Your task to perform on an android device: check the backup settings in the google photos Image 0: 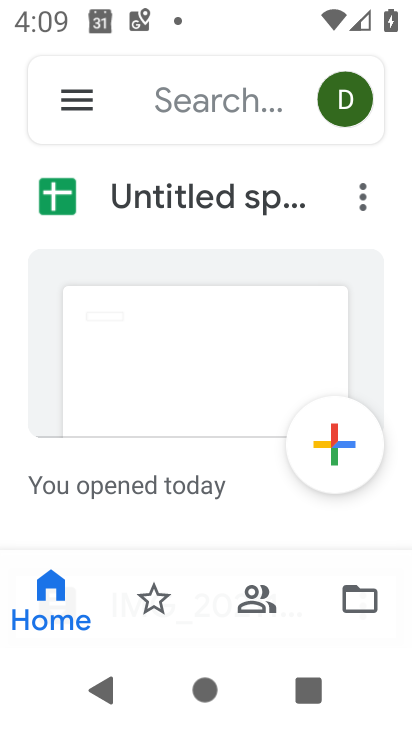
Step 0: press home button
Your task to perform on an android device: check the backup settings in the google photos Image 1: 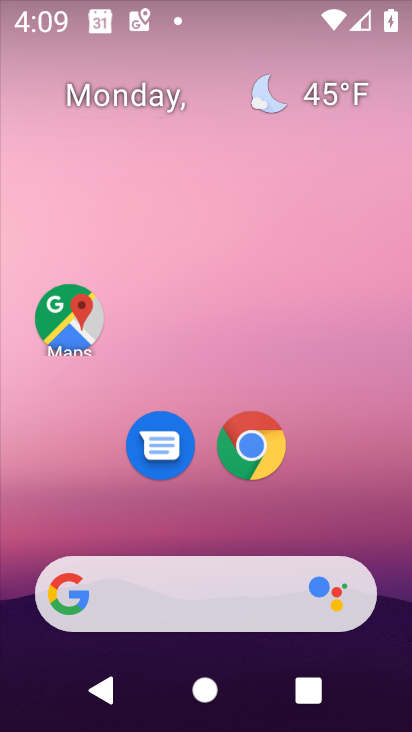
Step 1: drag from (285, 518) to (246, 37)
Your task to perform on an android device: check the backup settings in the google photos Image 2: 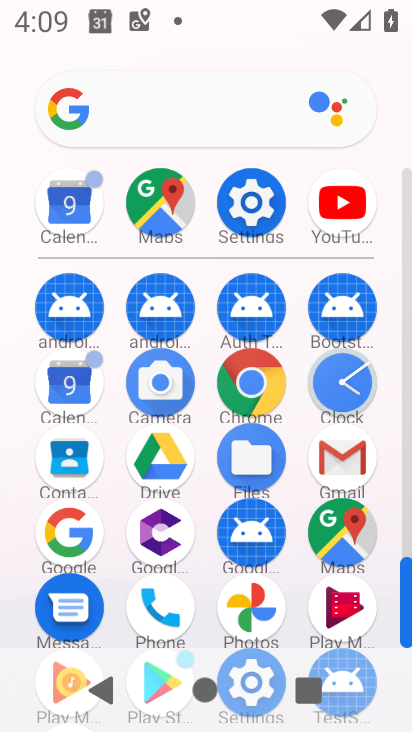
Step 2: click (248, 604)
Your task to perform on an android device: check the backup settings in the google photos Image 3: 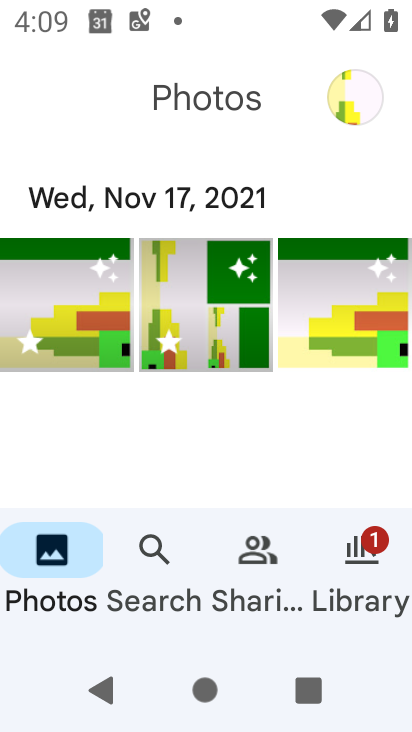
Step 3: click (377, 79)
Your task to perform on an android device: check the backup settings in the google photos Image 4: 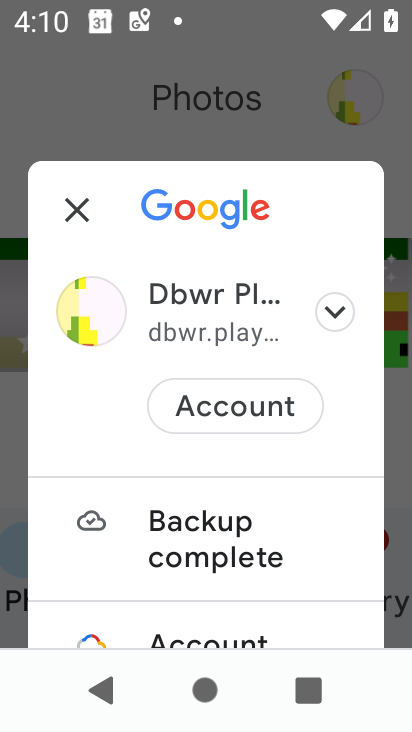
Step 4: drag from (216, 579) to (213, 249)
Your task to perform on an android device: check the backup settings in the google photos Image 5: 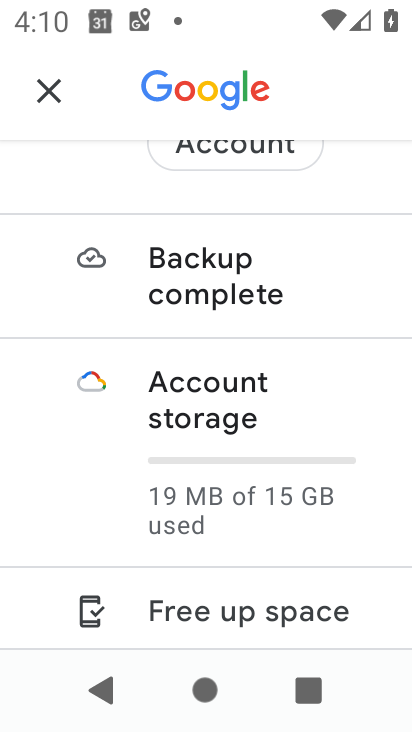
Step 5: drag from (207, 529) to (210, 188)
Your task to perform on an android device: check the backup settings in the google photos Image 6: 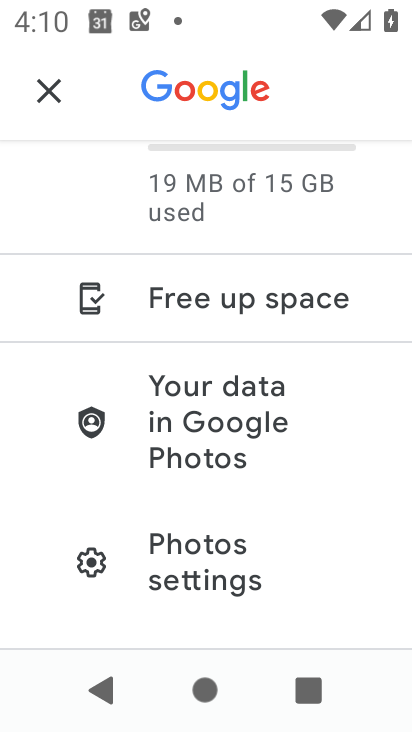
Step 6: click (175, 549)
Your task to perform on an android device: check the backup settings in the google photos Image 7: 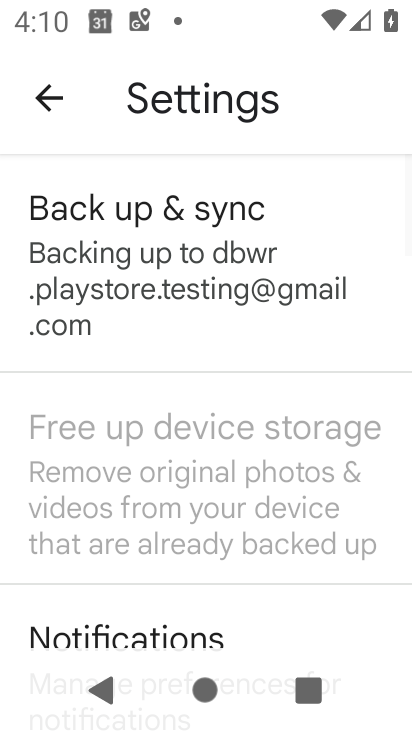
Step 7: click (132, 294)
Your task to perform on an android device: check the backup settings in the google photos Image 8: 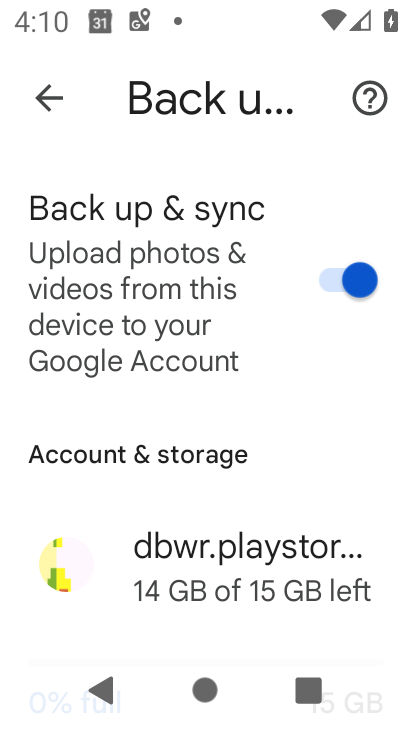
Step 8: task complete